Your task to perform on an android device: Open privacy settings Image 0: 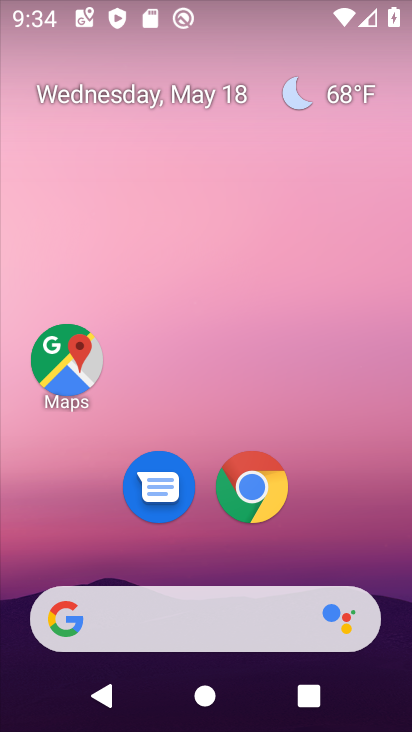
Step 0: drag from (326, 549) to (342, 172)
Your task to perform on an android device: Open privacy settings Image 1: 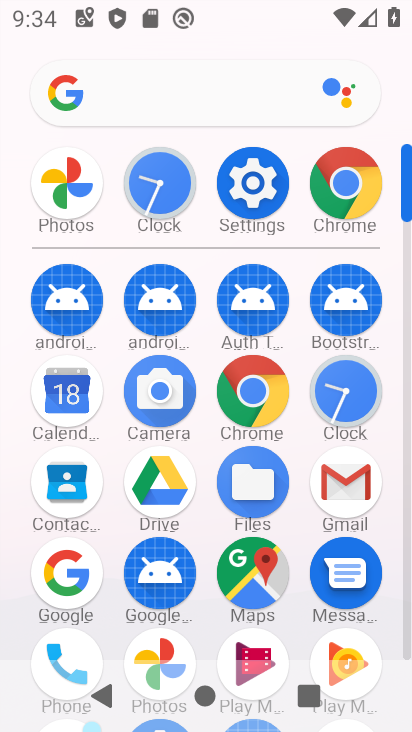
Step 1: click (283, 179)
Your task to perform on an android device: Open privacy settings Image 2: 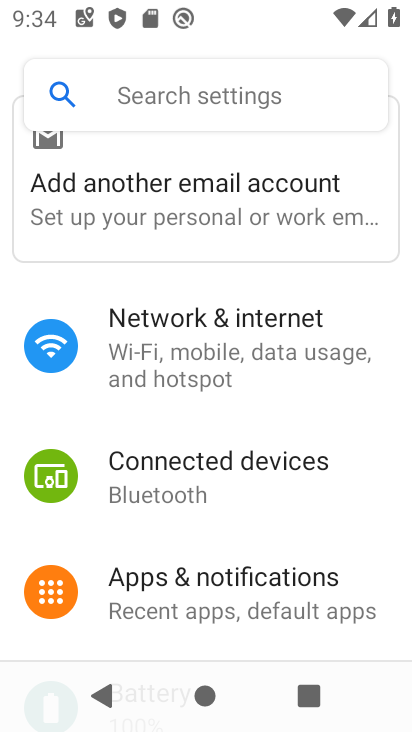
Step 2: drag from (257, 610) to (266, 273)
Your task to perform on an android device: Open privacy settings Image 3: 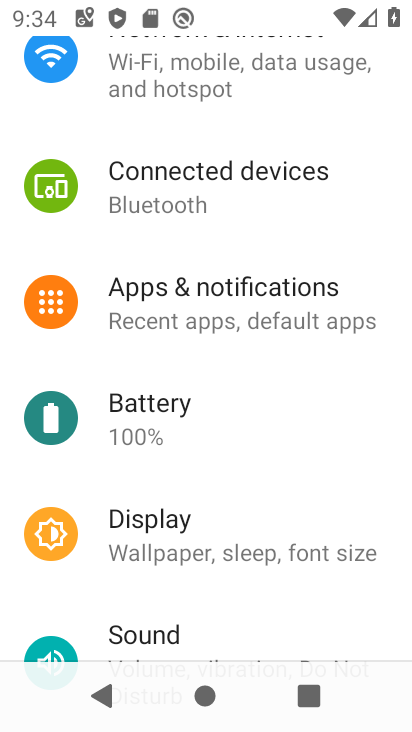
Step 3: drag from (238, 584) to (227, 280)
Your task to perform on an android device: Open privacy settings Image 4: 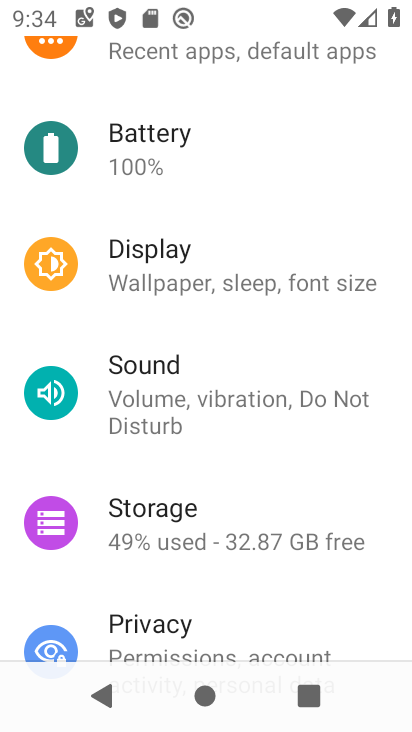
Step 4: click (191, 622)
Your task to perform on an android device: Open privacy settings Image 5: 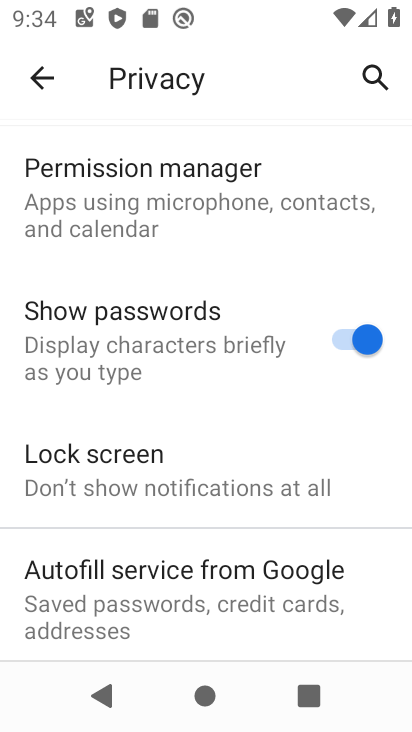
Step 5: task complete